Your task to perform on an android device: turn on notifications settings in the gmail app Image 0: 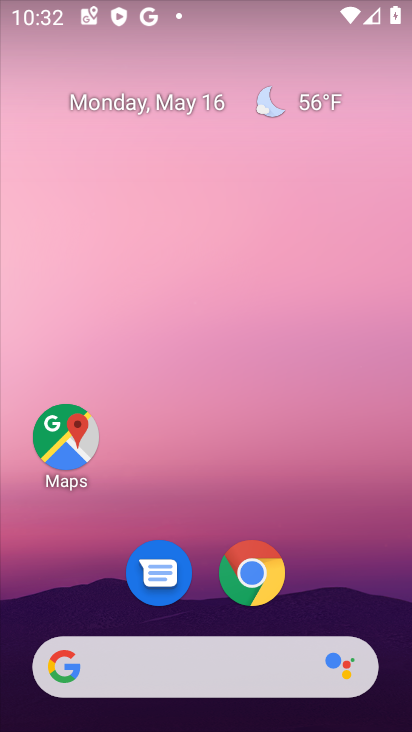
Step 0: click (315, 535)
Your task to perform on an android device: turn on notifications settings in the gmail app Image 1: 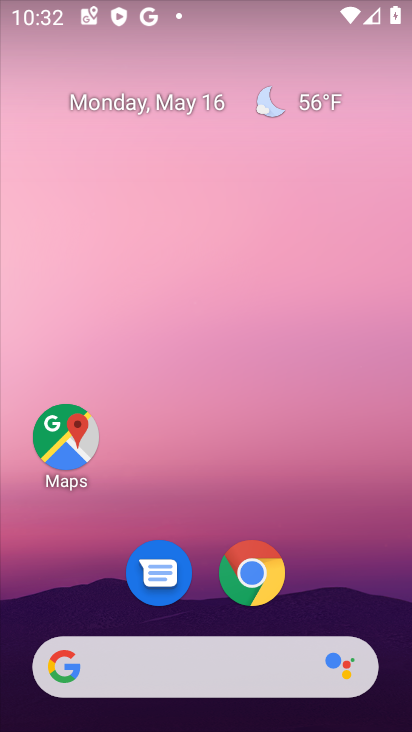
Step 1: drag from (315, 535) to (333, 205)
Your task to perform on an android device: turn on notifications settings in the gmail app Image 2: 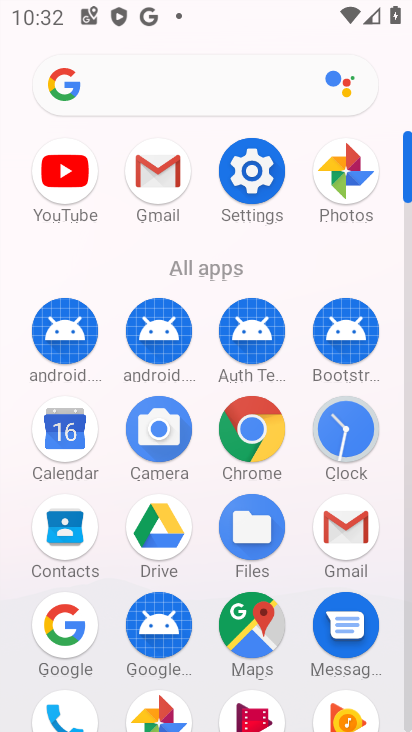
Step 2: click (361, 526)
Your task to perform on an android device: turn on notifications settings in the gmail app Image 3: 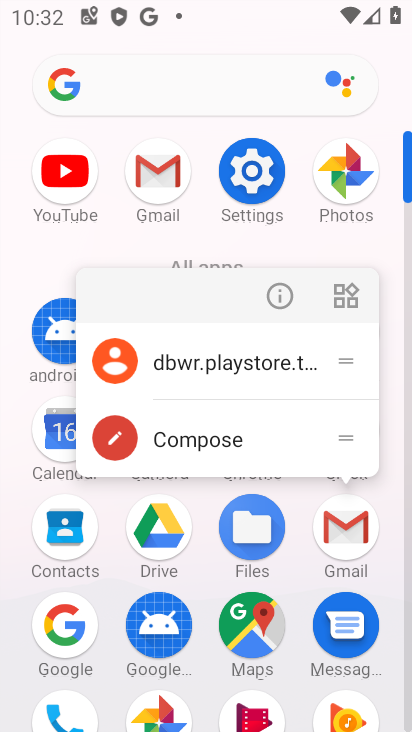
Step 3: click (280, 285)
Your task to perform on an android device: turn on notifications settings in the gmail app Image 4: 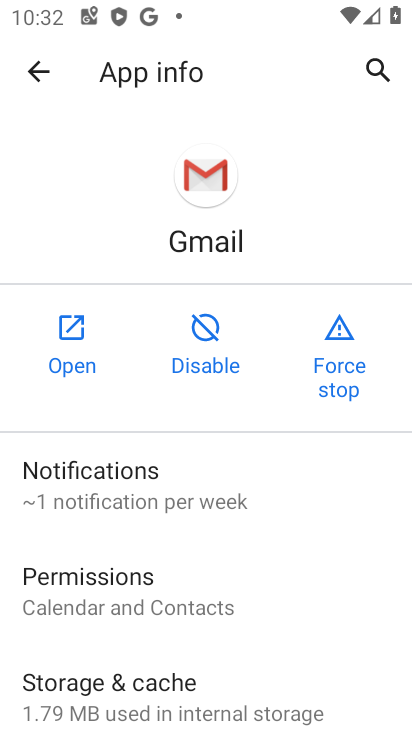
Step 4: click (181, 478)
Your task to perform on an android device: turn on notifications settings in the gmail app Image 5: 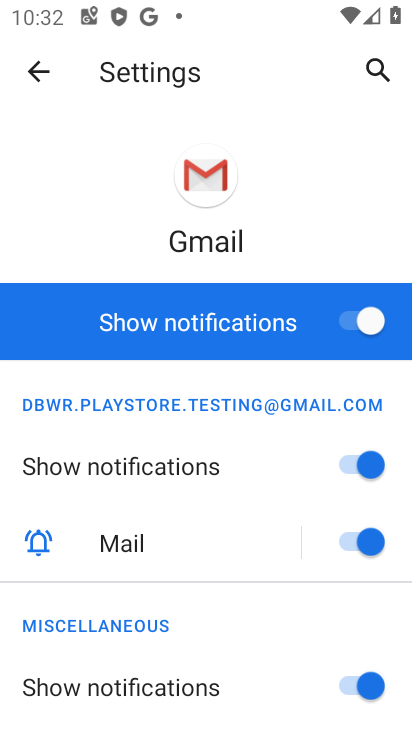
Step 5: task complete